Your task to perform on an android device: open app "LiveIn - Share Your Moment" (install if not already installed) Image 0: 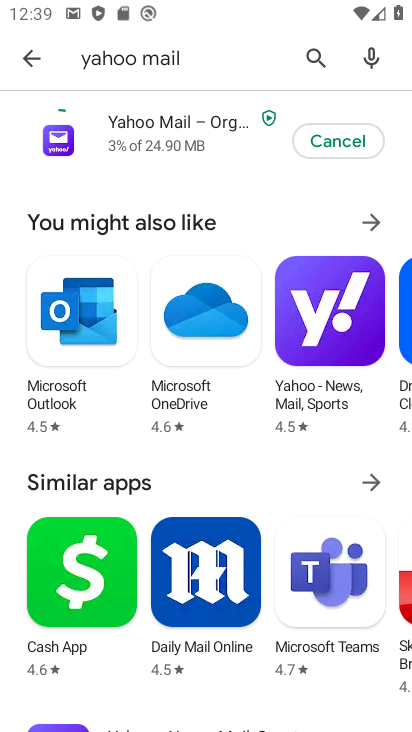
Step 0: click (314, 81)
Your task to perform on an android device: open app "LiveIn - Share Your Moment" (install if not already installed) Image 1: 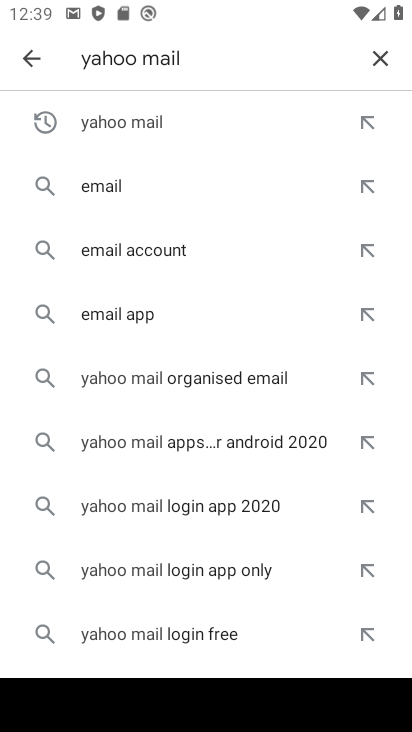
Step 1: click (380, 67)
Your task to perform on an android device: open app "LiveIn - Share Your Moment" (install if not already installed) Image 2: 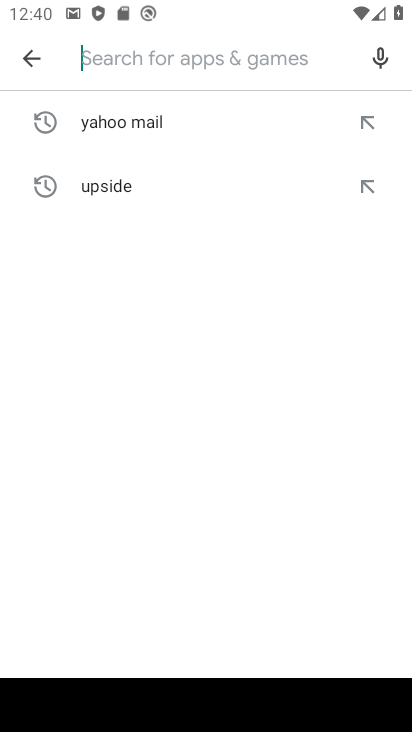
Step 2: type "liveLin"
Your task to perform on an android device: open app "LiveIn - Share Your Moment" (install if not already installed) Image 3: 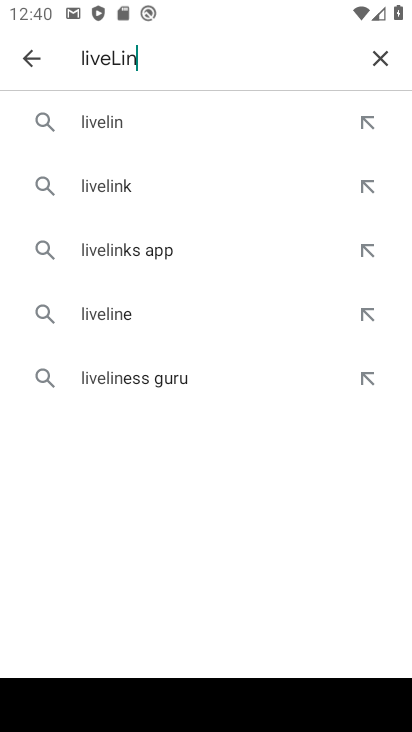
Step 3: click (160, 103)
Your task to perform on an android device: open app "LiveIn - Share Your Moment" (install if not already installed) Image 4: 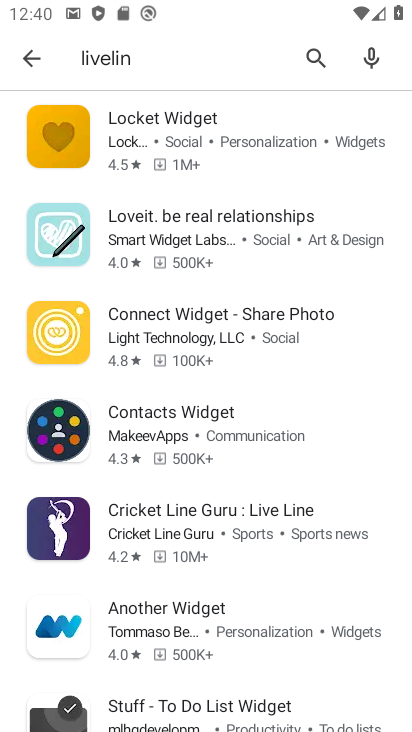
Step 4: click (241, 136)
Your task to perform on an android device: open app "LiveIn - Share Your Moment" (install if not already installed) Image 5: 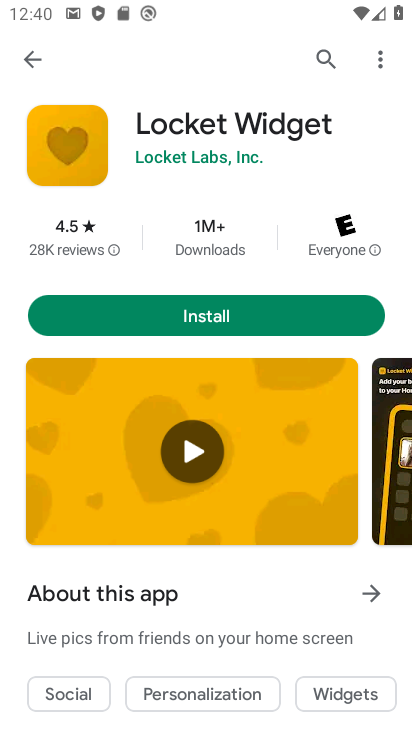
Step 5: click (188, 302)
Your task to perform on an android device: open app "LiveIn - Share Your Moment" (install if not already installed) Image 6: 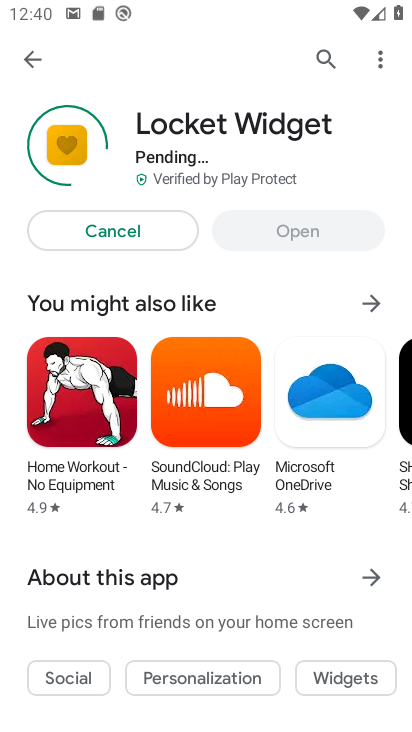
Step 6: task complete